Your task to perform on an android device: turn on wifi Image 0: 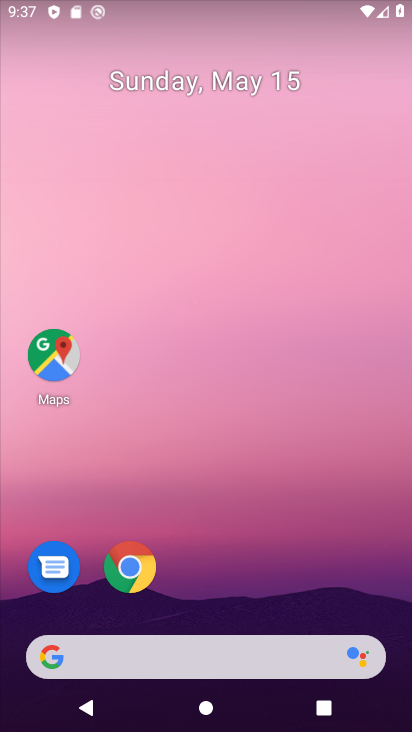
Step 0: drag from (198, 446) to (196, 135)
Your task to perform on an android device: turn on wifi Image 1: 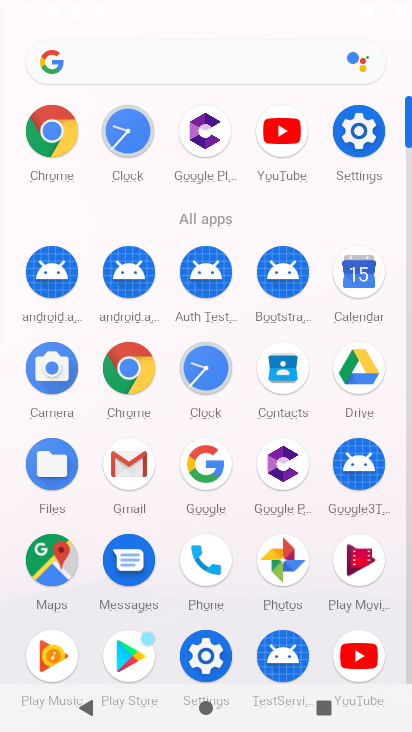
Step 1: click (365, 130)
Your task to perform on an android device: turn on wifi Image 2: 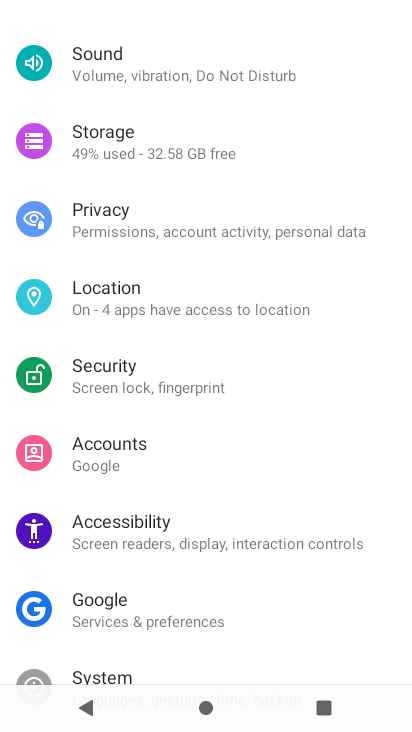
Step 2: drag from (193, 128) to (181, 718)
Your task to perform on an android device: turn on wifi Image 3: 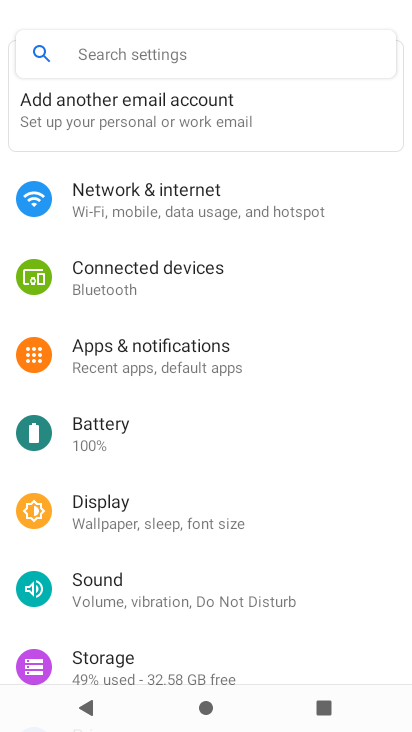
Step 3: click (150, 194)
Your task to perform on an android device: turn on wifi Image 4: 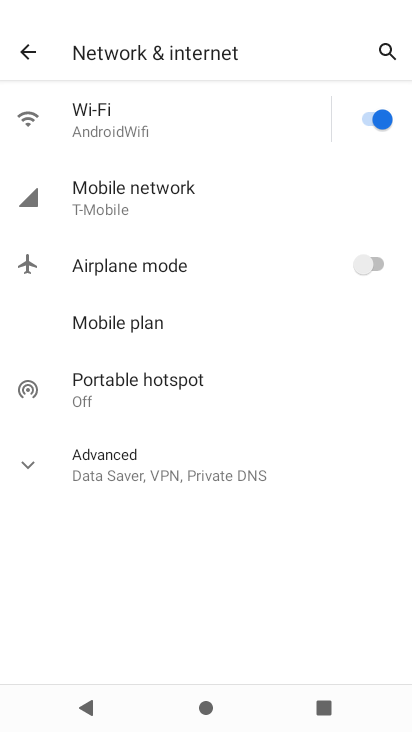
Step 4: task complete